Your task to perform on an android device: change timer sound Image 0: 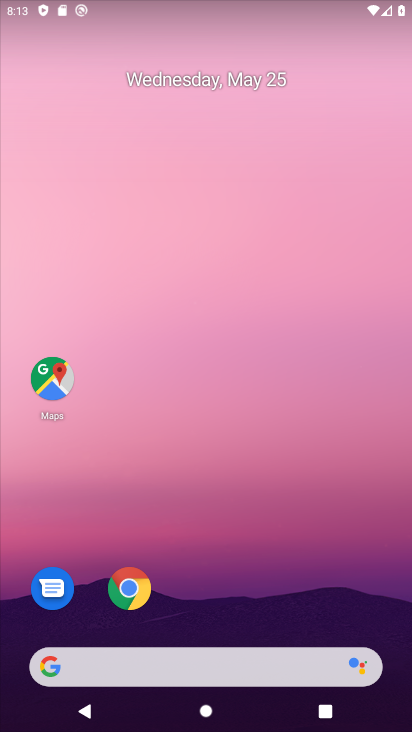
Step 0: press home button
Your task to perform on an android device: change timer sound Image 1: 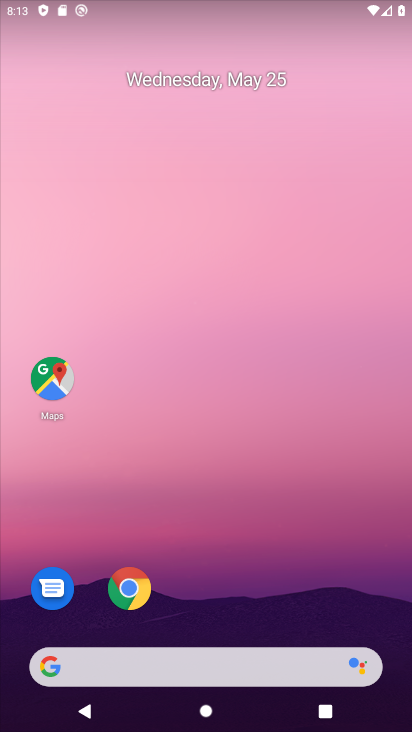
Step 1: drag from (31, 513) to (238, 129)
Your task to perform on an android device: change timer sound Image 2: 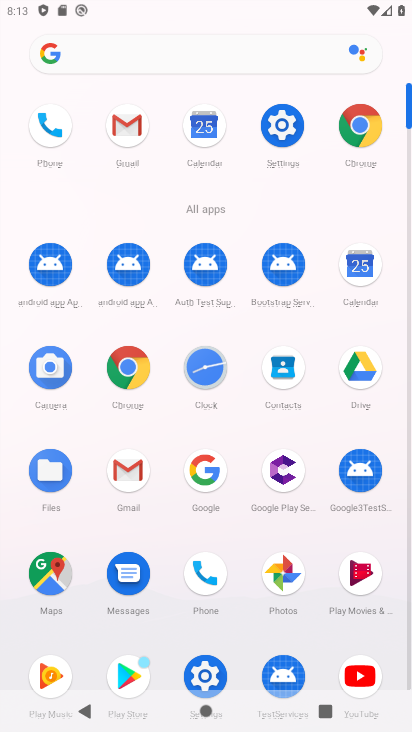
Step 2: click (218, 383)
Your task to perform on an android device: change timer sound Image 3: 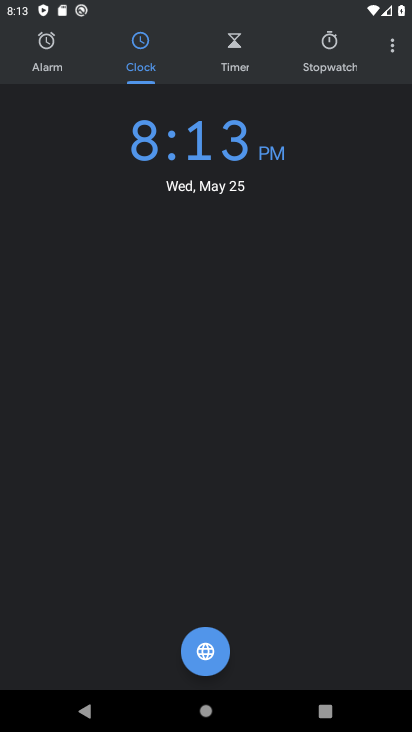
Step 3: click (385, 41)
Your task to perform on an android device: change timer sound Image 4: 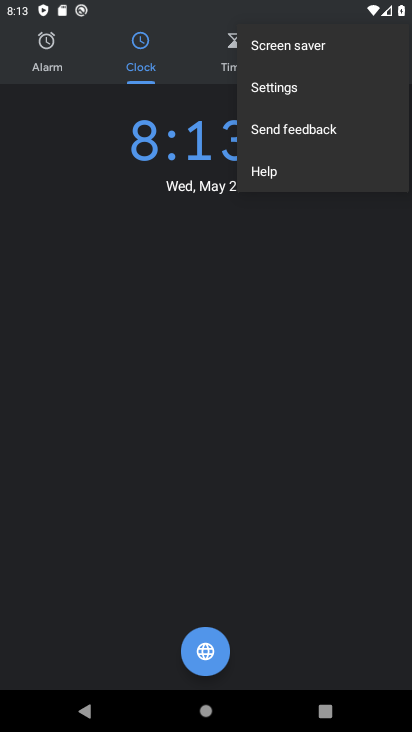
Step 4: click (296, 92)
Your task to perform on an android device: change timer sound Image 5: 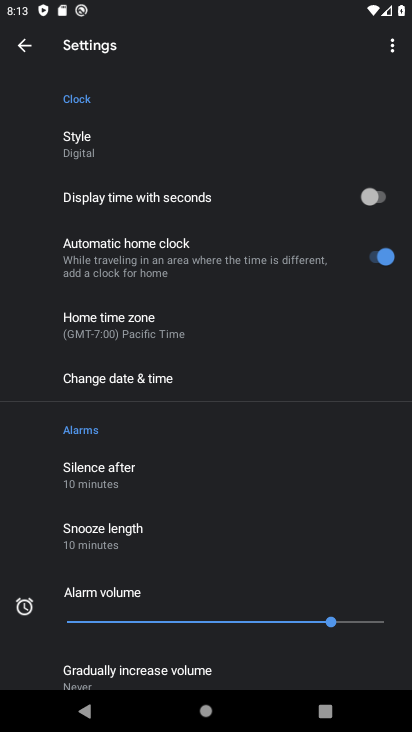
Step 5: drag from (26, 488) to (289, 77)
Your task to perform on an android device: change timer sound Image 6: 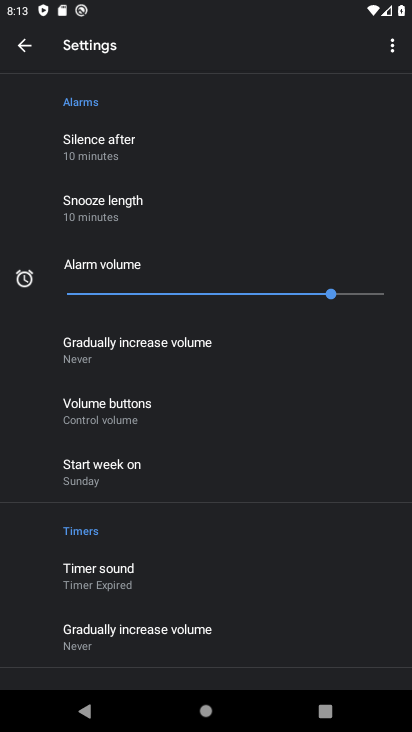
Step 6: click (79, 577)
Your task to perform on an android device: change timer sound Image 7: 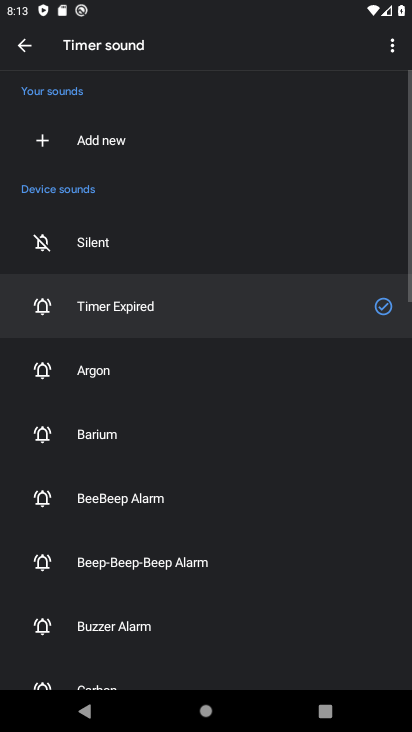
Step 7: click (127, 365)
Your task to perform on an android device: change timer sound Image 8: 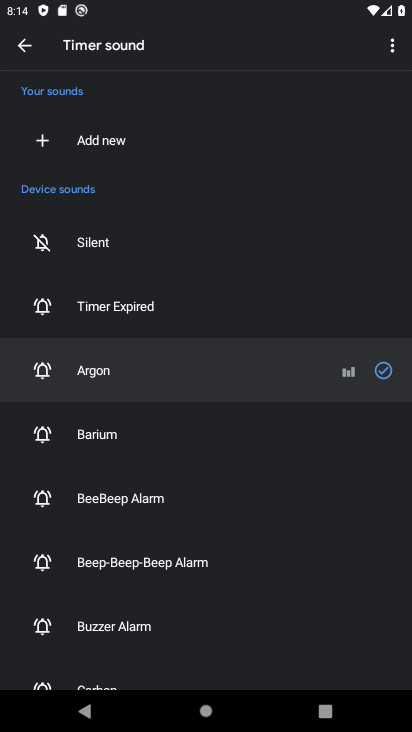
Step 8: task complete